Your task to perform on an android device: Turn on the flashlight Image 0: 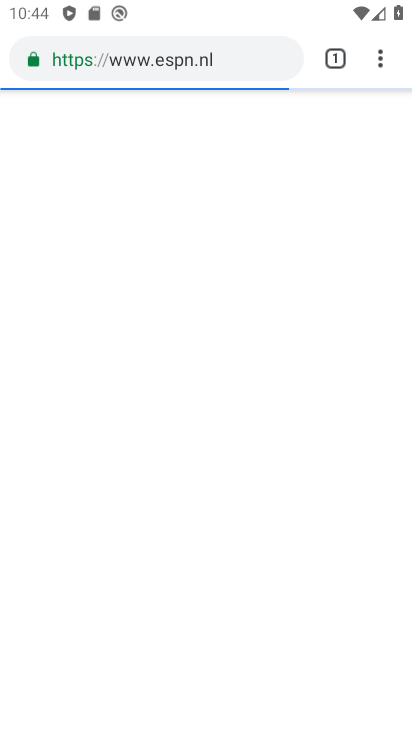
Step 0: press home button
Your task to perform on an android device: Turn on the flashlight Image 1: 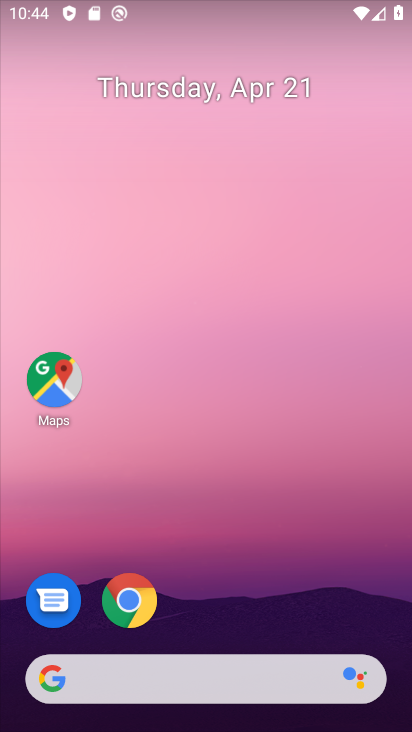
Step 1: drag from (301, 482) to (360, 52)
Your task to perform on an android device: Turn on the flashlight Image 2: 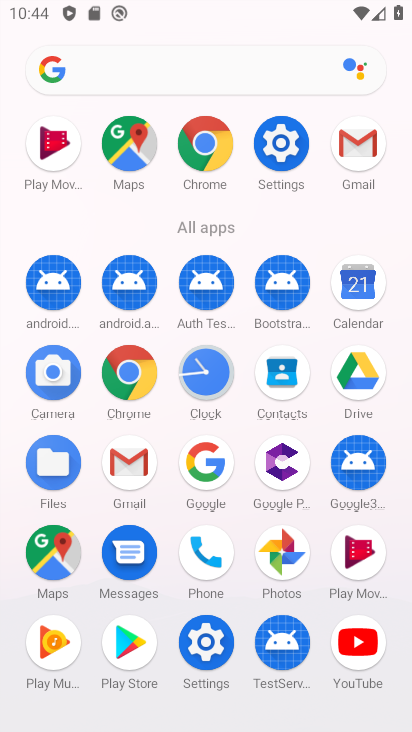
Step 2: click (286, 159)
Your task to perform on an android device: Turn on the flashlight Image 3: 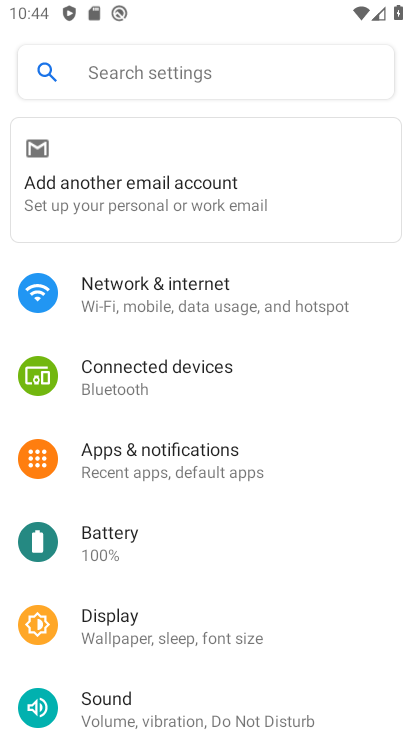
Step 3: task complete